Your task to perform on an android device: open app "File Manager" Image 0: 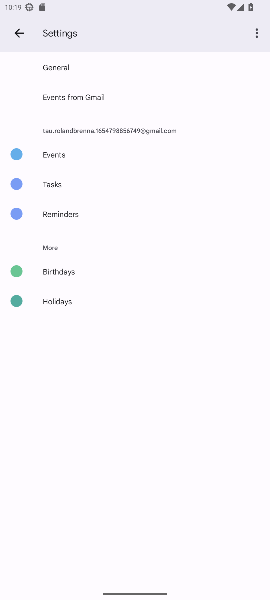
Step 0: press home button
Your task to perform on an android device: open app "File Manager" Image 1: 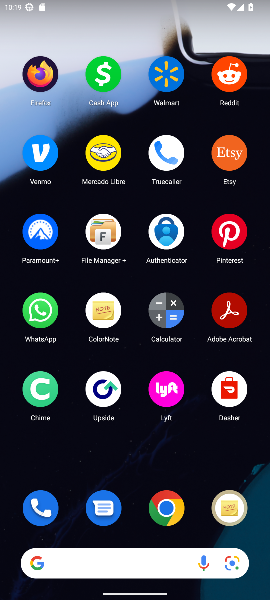
Step 1: drag from (177, 546) to (247, 46)
Your task to perform on an android device: open app "File Manager" Image 2: 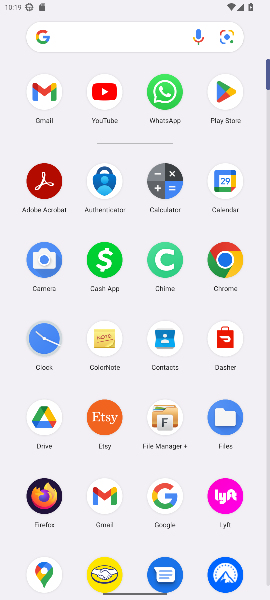
Step 2: click (234, 81)
Your task to perform on an android device: open app "File Manager" Image 3: 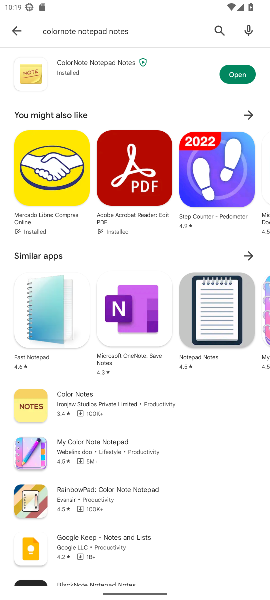
Step 3: click (217, 29)
Your task to perform on an android device: open app "File Manager" Image 4: 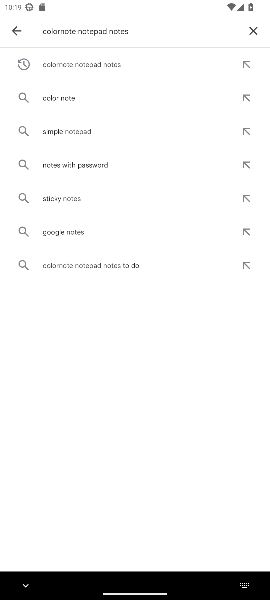
Step 4: click (255, 28)
Your task to perform on an android device: open app "File Manager" Image 5: 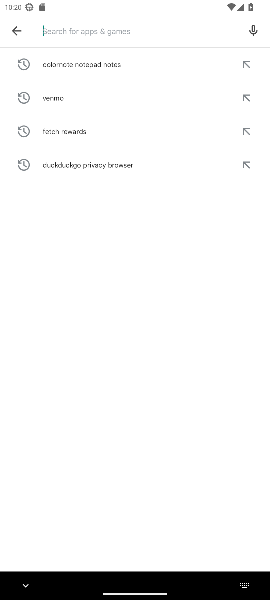
Step 5: type "file manager"
Your task to perform on an android device: open app "File Manager" Image 6: 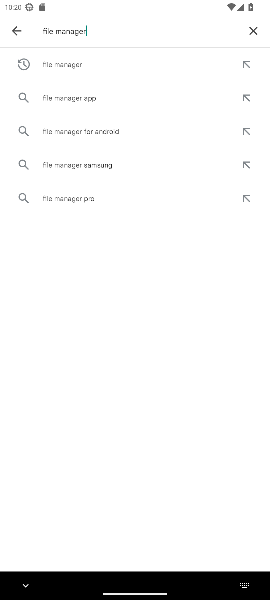
Step 6: click (102, 62)
Your task to perform on an android device: open app "File Manager" Image 7: 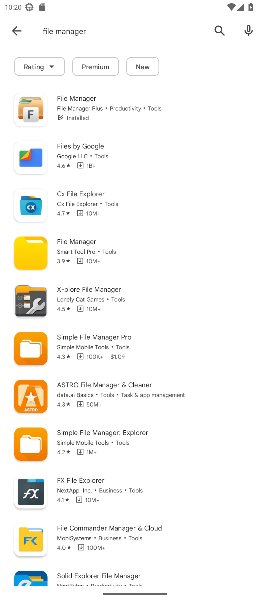
Step 7: click (105, 102)
Your task to perform on an android device: open app "File Manager" Image 8: 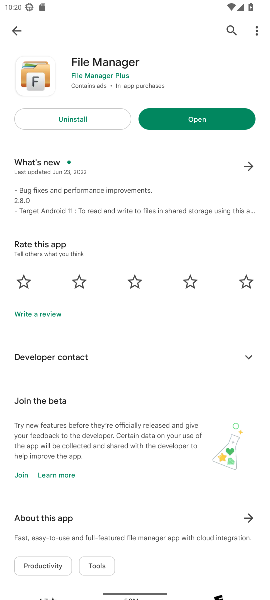
Step 8: click (228, 116)
Your task to perform on an android device: open app "File Manager" Image 9: 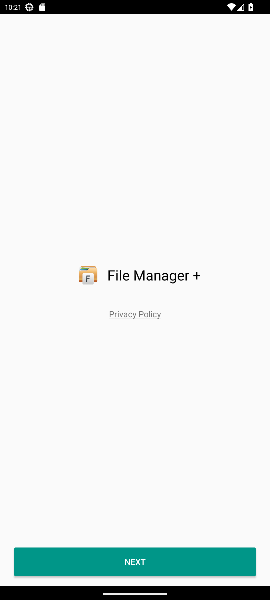
Step 9: task complete